Your task to perform on an android device: Open Chrome and go to settings Image 0: 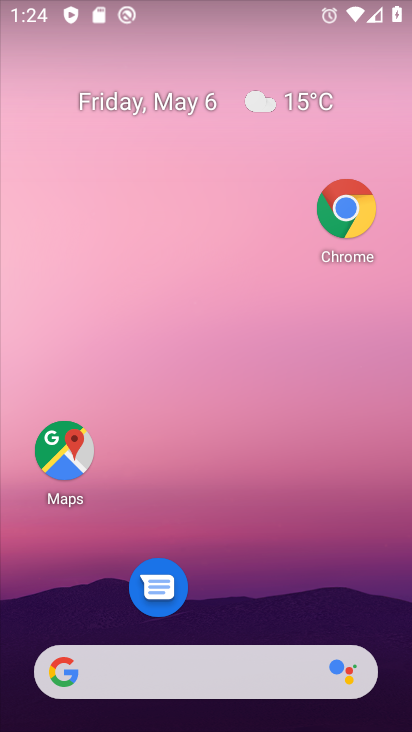
Step 0: drag from (290, 579) to (238, 95)
Your task to perform on an android device: Open Chrome and go to settings Image 1: 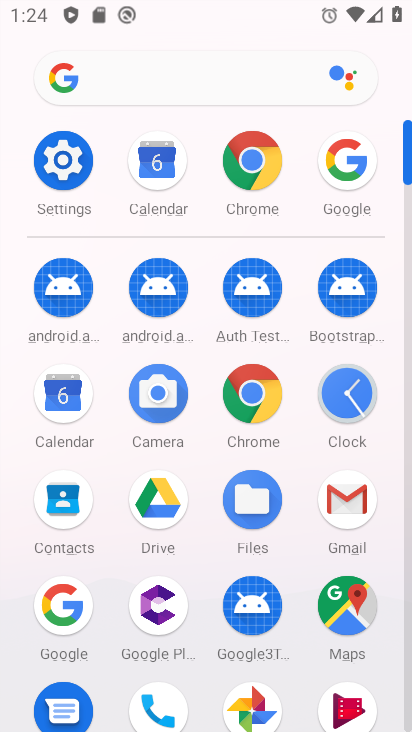
Step 1: click (254, 206)
Your task to perform on an android device: Open Chrome and go to settings Image 2: 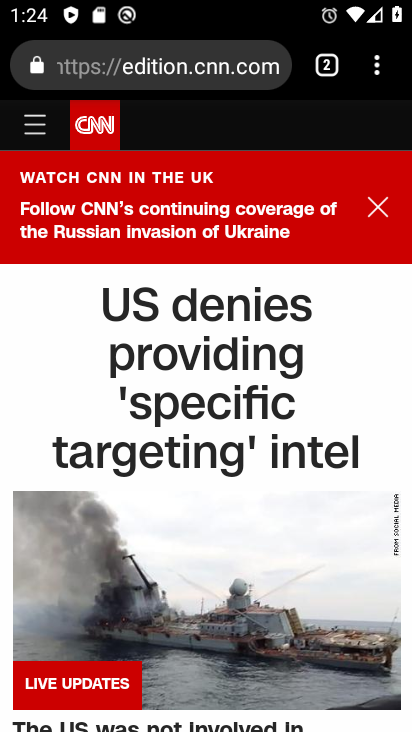
Step 2: click (373, 63)
Your task to perform on an android device: Open Chrome and go to settings Image 3: 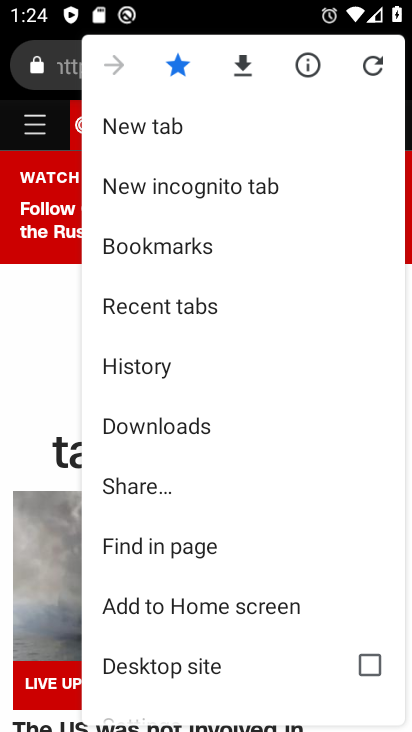
Step 3: drag from (268, 280) to (279, 242)
Your task to perform on an android device: Open Chrome and go to settings Image 4: 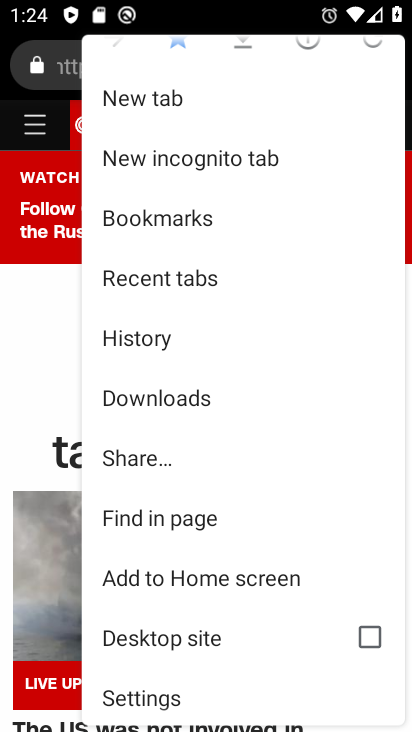
Step 4: click (142, 699)
Your task to perform on an android device: Open Chrome and go to settings Image 5: 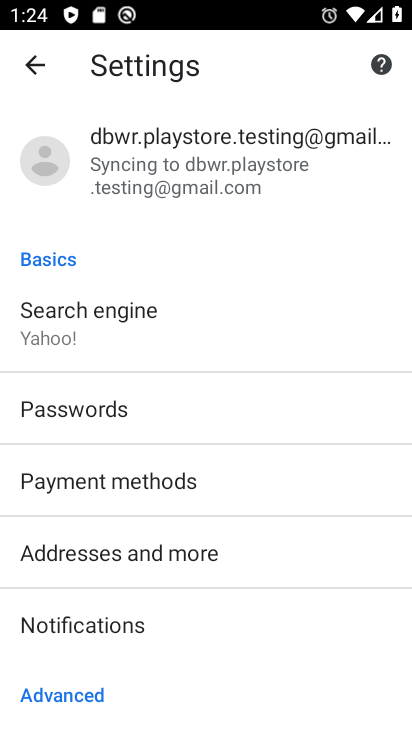
Step 5: task complete